Your task to perform on an android device: Go to battery settings Image 0: 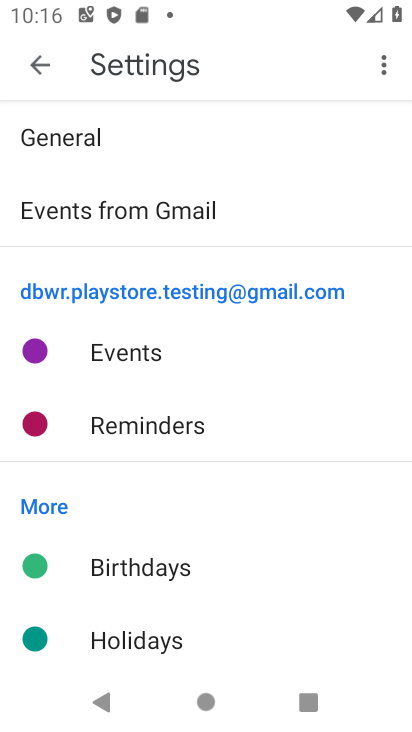
Step 0: press home button
Your task to perform on an android device: Go to battery settings Image 1: 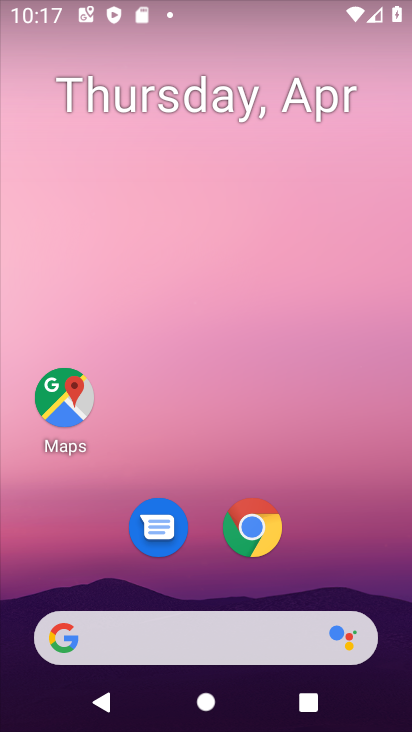
Step 1: drag from (321, 258) to (307, 76)
Your task to perform on an android device: Go to battery settings Image 2: 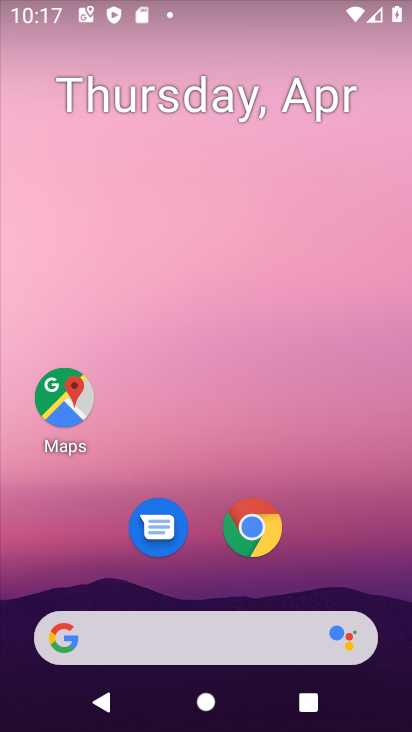
Step 2: drag from (347, 517) to (339, 72)
Your task to perform on an android device: Go to battery settings Image 3: 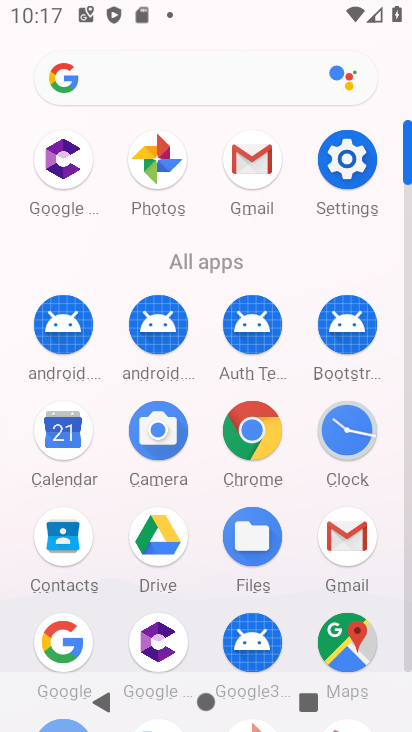
Step 3: click (353, 163)
Your task to perform on an android device: Go to battery settings Image 4: 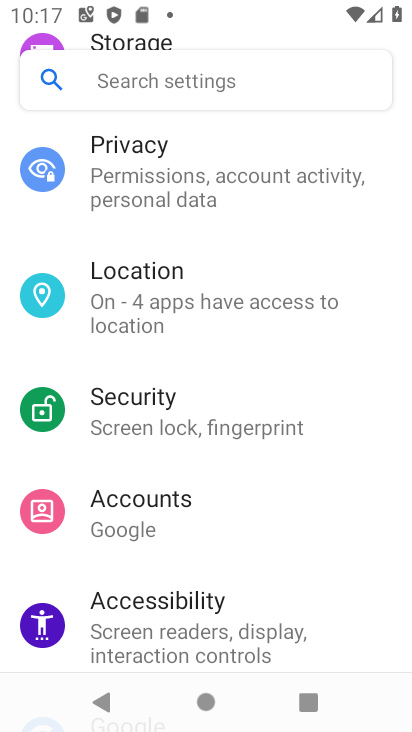
Step 4: drag from (202, 370) to (193, 554)
Your task to perform on an android device: Go to battery settings Image 5: 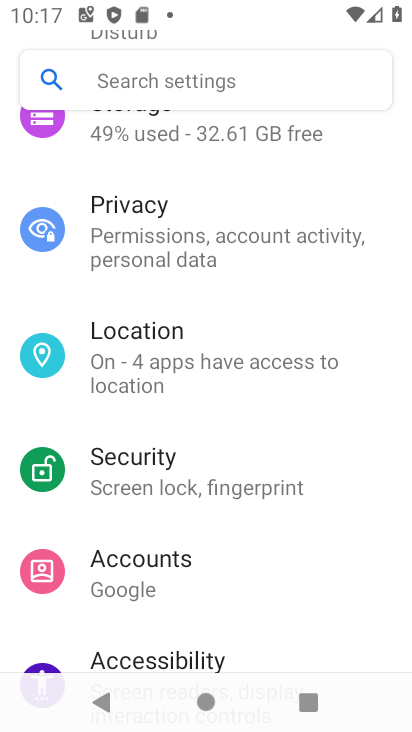
Step 5: drag from (230, 254) to (211, 501)
Your task to perform on an android device: Go to battery settings Image 6: 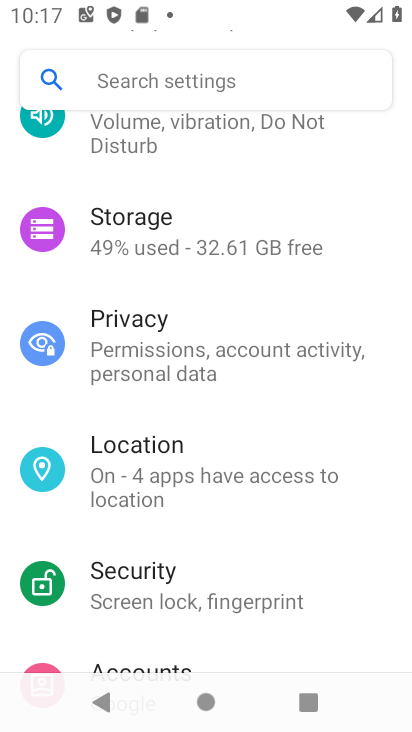
Step 6: drag from (250, 125) to (269, 508)
Your task to perform on an android device: Go to battery settings Image 7: 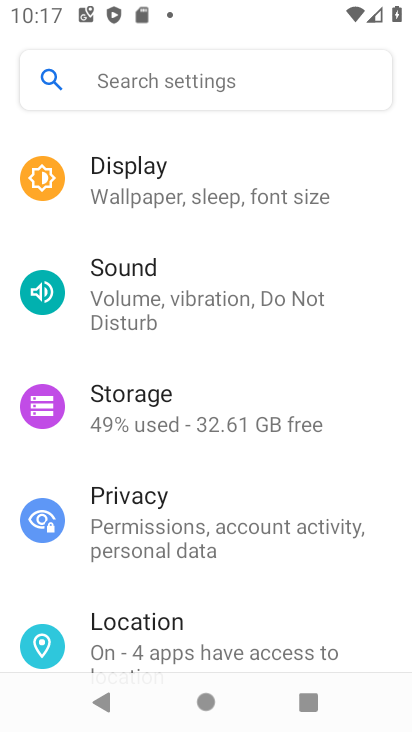
Step 7: drag from (273, 197) to (253, 552)
Your task to perform on an android device: Go to battery settings Image 8: 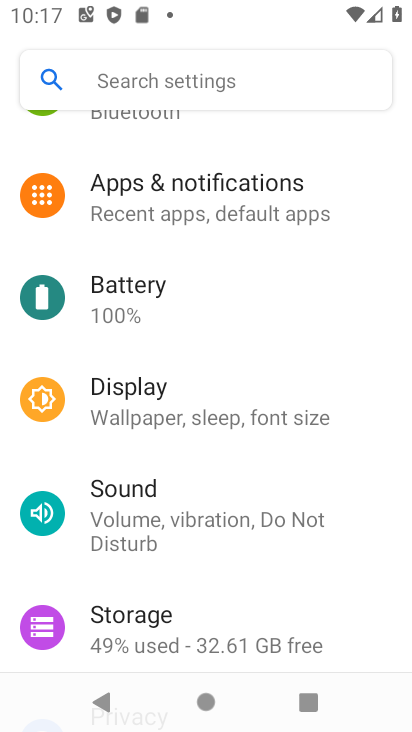
Step 8: click (170, 302)
Your task to perform on an android device: Go to battery settings Image 9: 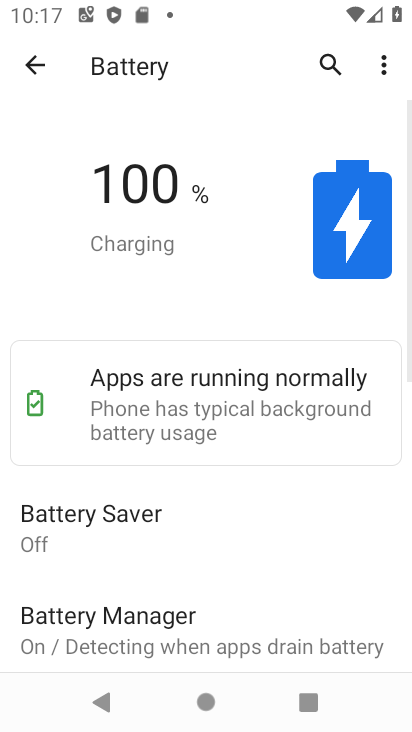
Step 9: task complete